Your task to perform on an android device: toggle priority inbox in the gmail app Image 0: 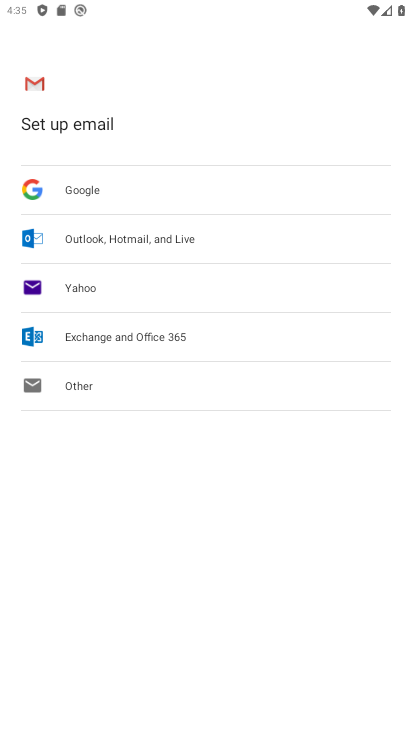
Step 0: press back button
Your task to perform on an android device: toggle priority inbox in the gmail app Image 1: 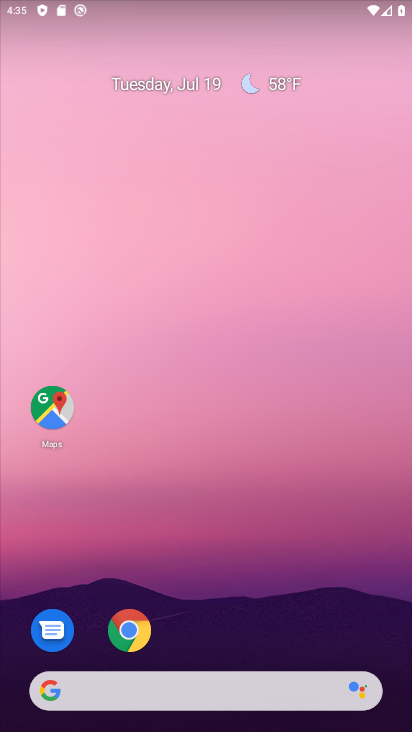
Step 1: drag from (239, 559) to (264, 228)
Your task to perform on an android device: toggle priority inbox in the gmail app Image 2: 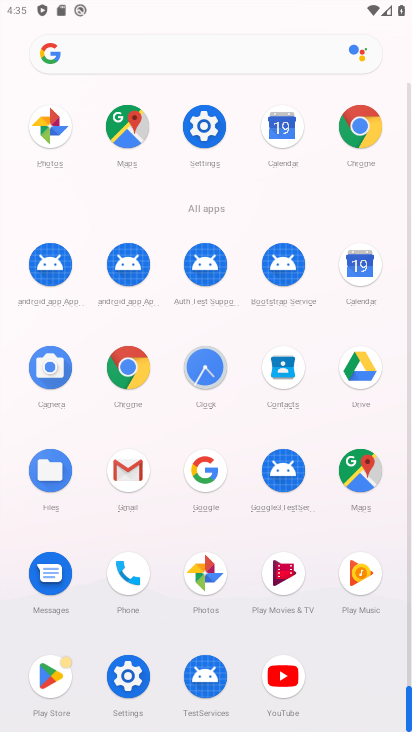
Step 2: click (133, 474)
Your task to perform on an android device: toggle priority inbox in the gmail app Image 3: 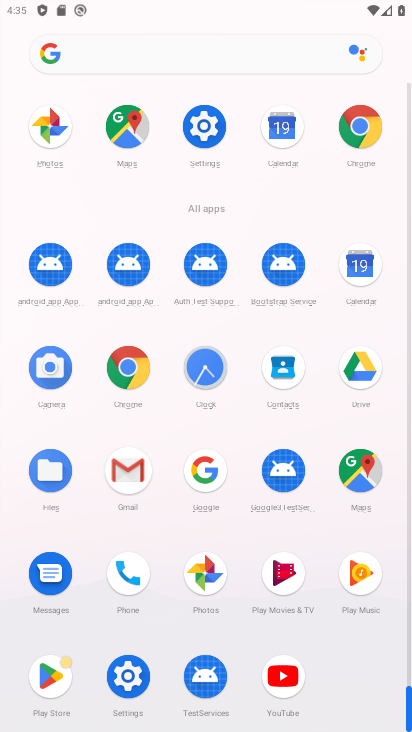
Step 3: click (134, 473)
Your task to perform on an android device: toggle priority inbox in the gmail app Image 4: 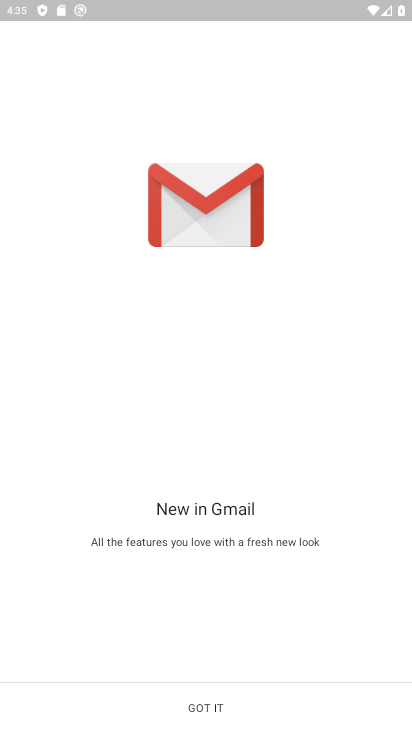
Step 4: click (198, 704)
Your task to perform on an android device: toggle priority inbox in the gmail app Image 5: 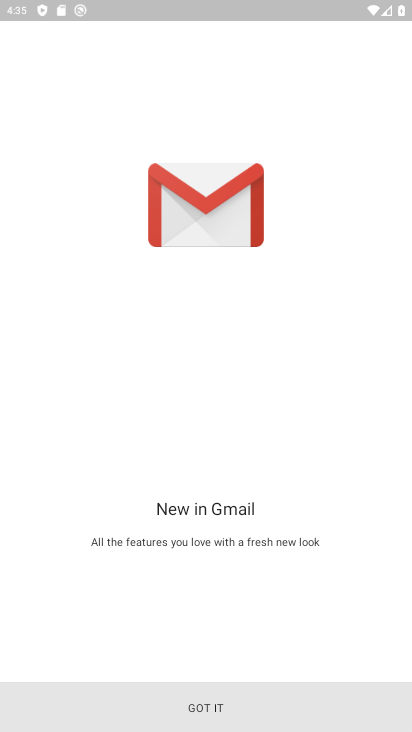
Step 5: click (199, 704)
Your task to perform on an android device: toggle priority inbox in the gmail app Image 6: 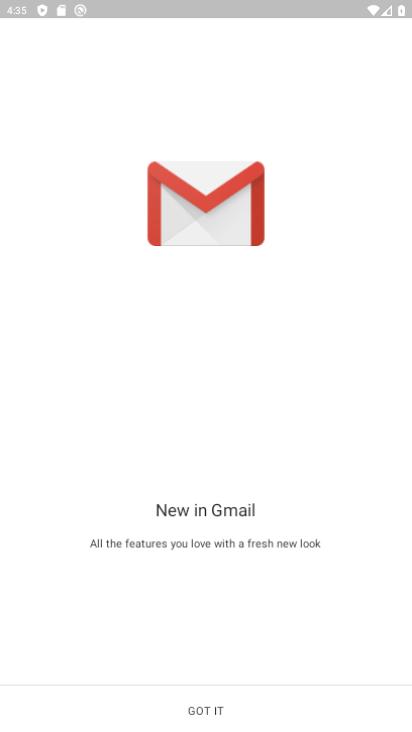
Step 6: click (199, 704)
Your task to perform on an android device: toggle priority inbox in the gmail app Image 7: 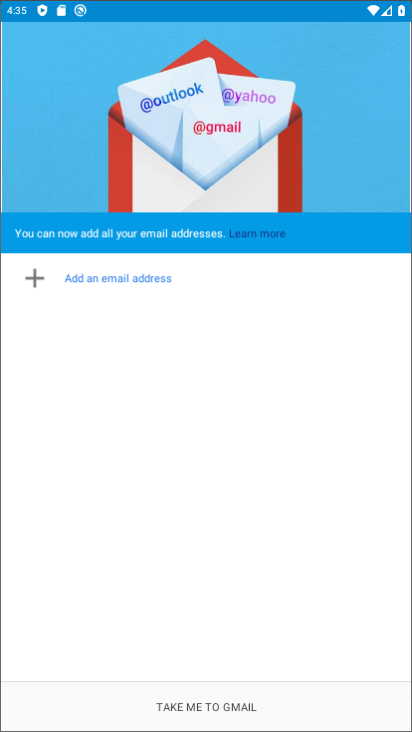
Step 7: click (199, 704)
Your task to perform on an android device: toggle priority inbox in the gmail app Image 8: 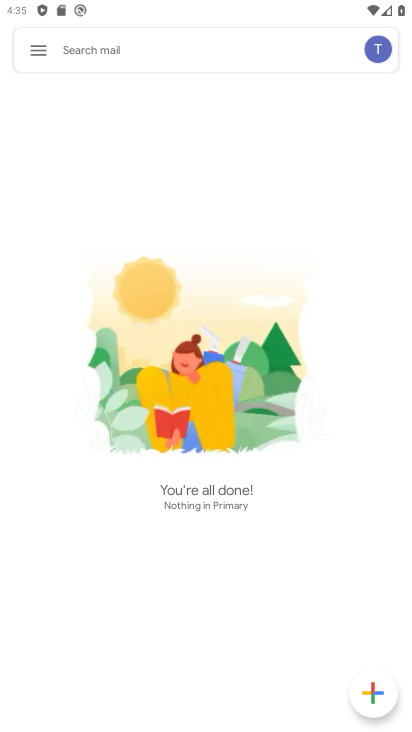
Step 8: click (39, 41)
Your task to perform on an android device: toggle priority inbox in the gmail app Image 9: 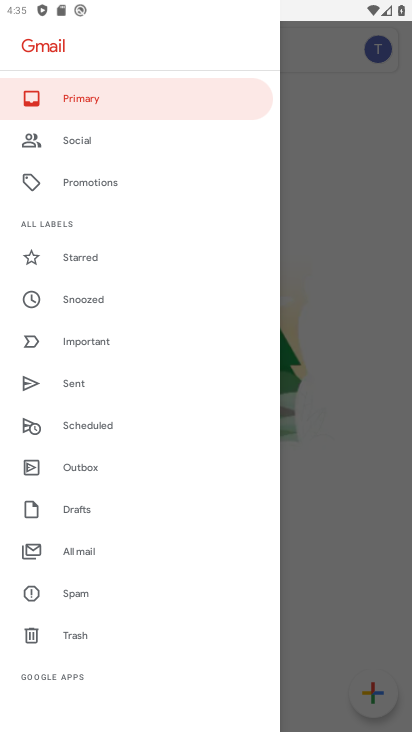
Step 9: drag from (111, 621) to (62, 290)
Your task to perform on an android device: toggle priority inbox in the gmail app Image 10: 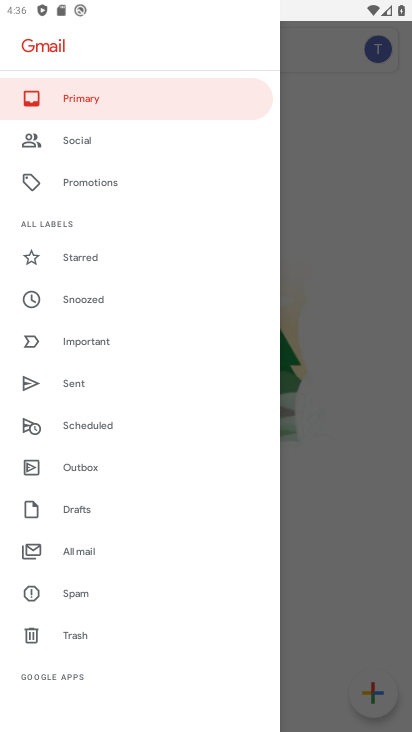
Step 10: drag from (150, 540) to (60, 239)
Your task to perform on an android device: toggle priority inbox in the gmail app Image 11: 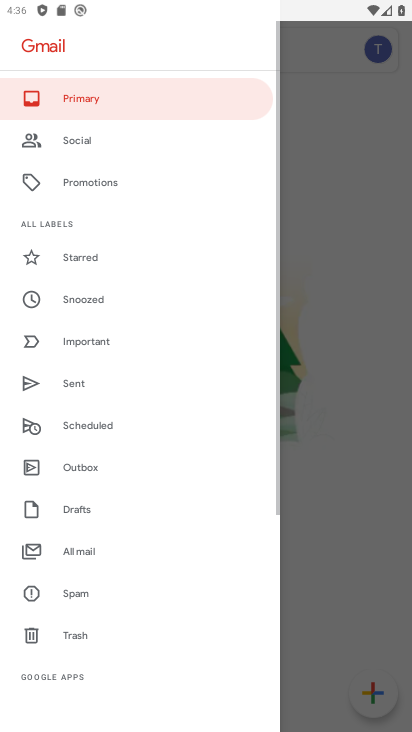
Step 11: drag from (144, 507) to (130, 234)
Your task to perform on an android device: toggle priority inbox in the gmail app Image 12: 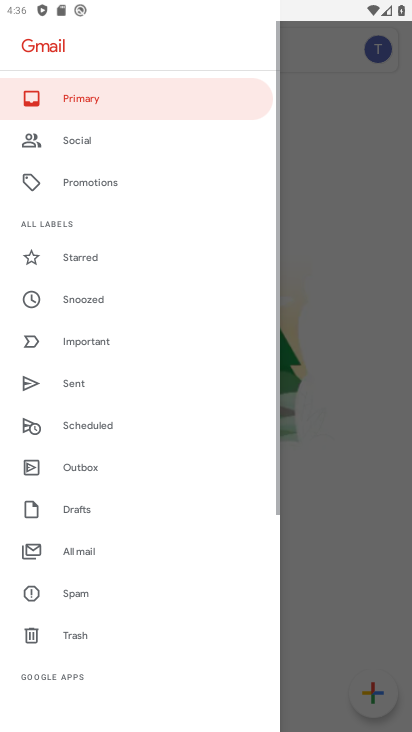
Step 12: drag from (142, 517) to (68, 194)
Your task to perform on an android device: toggle priority inbox in the gmail app Image 13: 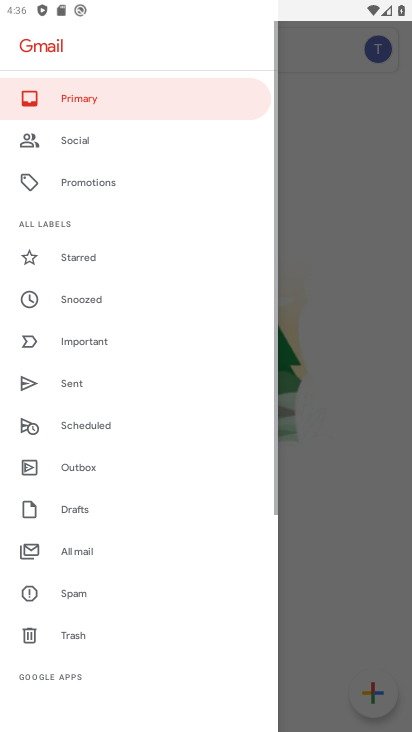
Step 13: drag from (86, 469) to (70, 159)
Your task to perform on an android device: toggle priority inbox in the gmail app Image 14: 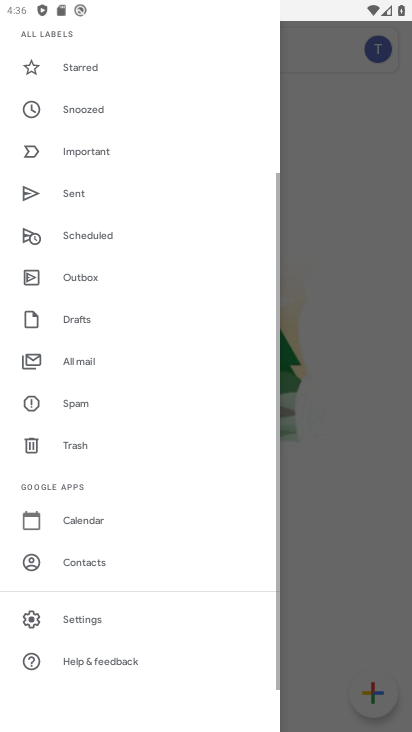
Step 14: drag from (116, 573) to (115, 330)
Your task to perform on an android device: toggle priority inbox in the gmail app Image 15: 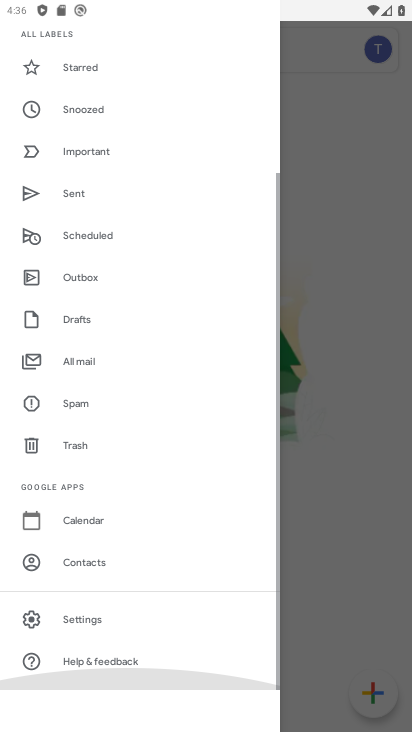
Step 15: drag from (109, 566) to (107, 324)
Your task to perform on an android device: toggle priority inbox in the gmail app Image 16: 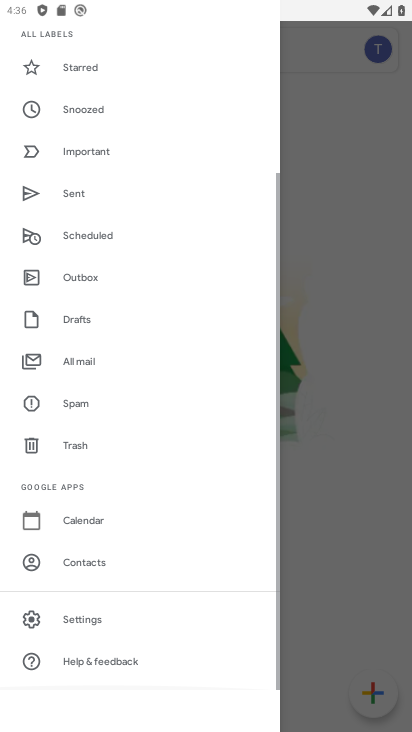
Step 16: click (72, 623)
Your task to perform on an android device: toggle priority inbox in the gmail app Image 17: 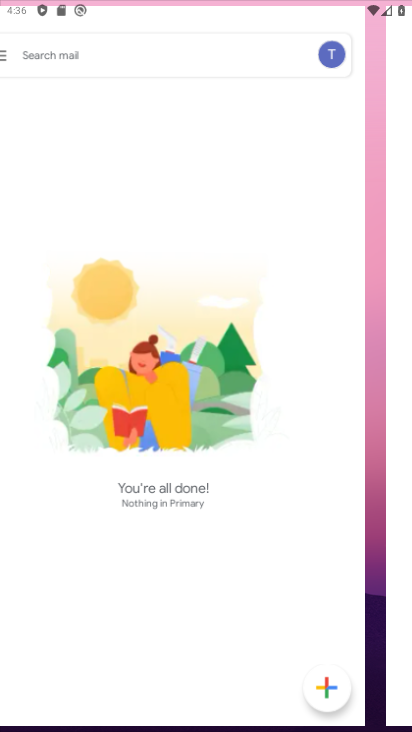
Step 17: click (73, 621)
Your task to perform on an android device: toggle priority inbox in the gmail app Image 18: 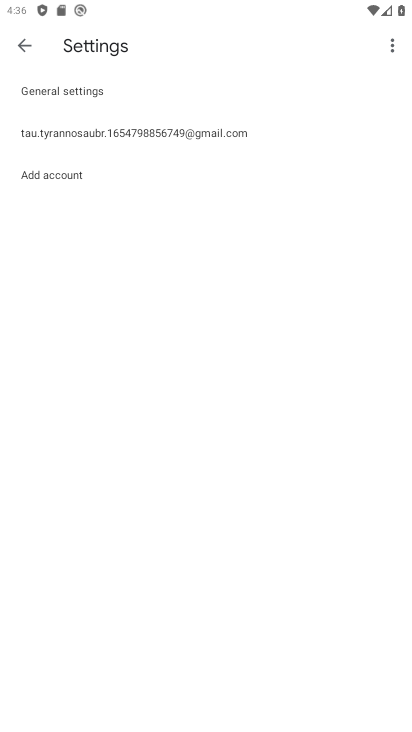
Step 18: click (79, 124)
Your task to perform on an android device: toggle priority inbox in the gmail app Image 19: 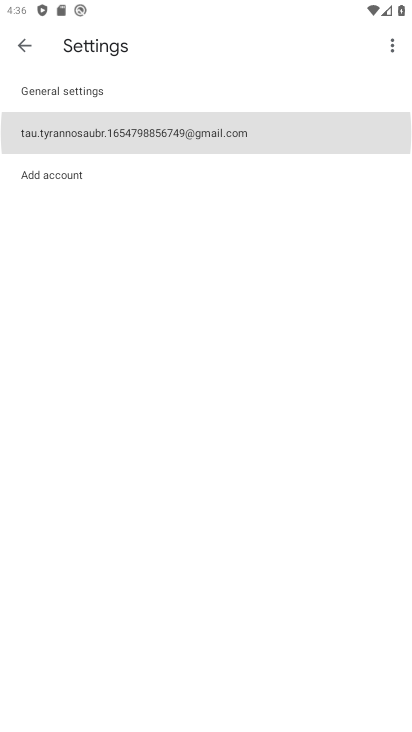
Step 19: click (83, 127)
Your task to perform on an android device: toggle priority inbox in the gmail app Image 20: 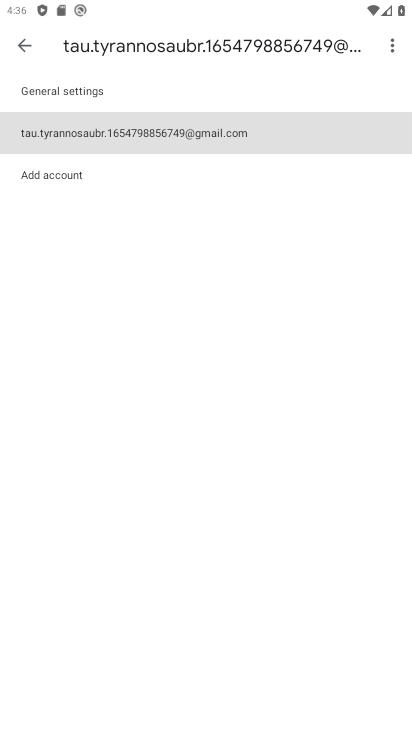
Step 20: click (90, 126)
Your task to perform on an android device: toggle priority inbox in the gmail app Image 21: 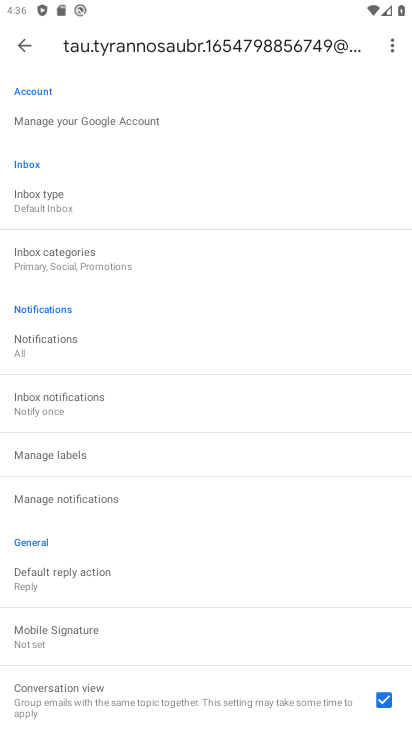
Step 21: click (35, 205)
Your task to perform on an android device: toggle priority inbox in the gmail app Image 22: 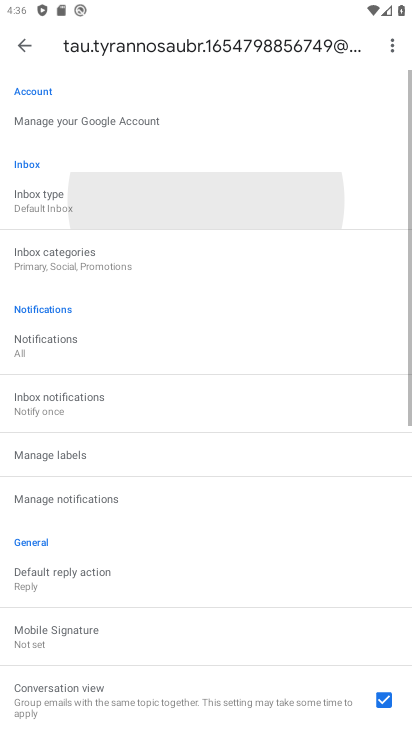
Step 22: click (46, 200)
Your task to perform on an android device: toggle priority inbox in the gmail app Image 23: 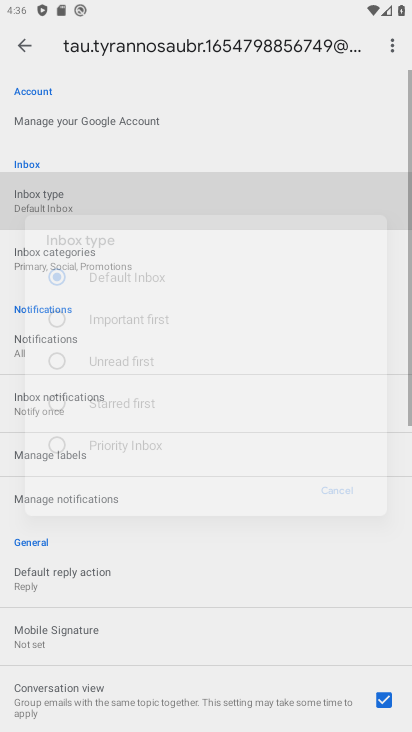
Step 23: click (47, 205)
Your task to perform on an android device: toggle priority inbox in the gmail app Image 24: 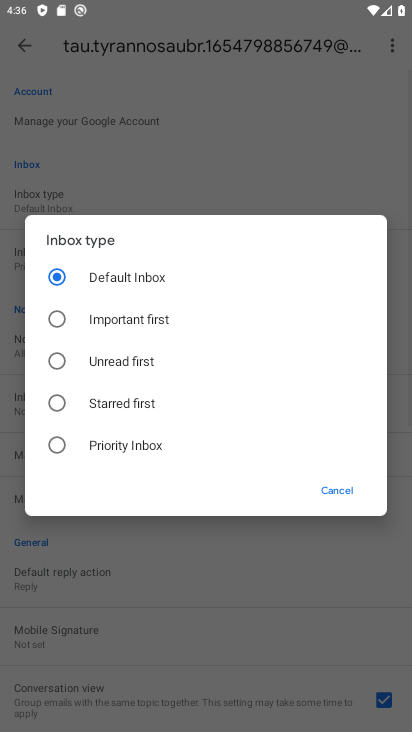
Step 24: click (54, 449)
Your task to perform on an android device: toggle priority inbox in the gmail app Image 25: 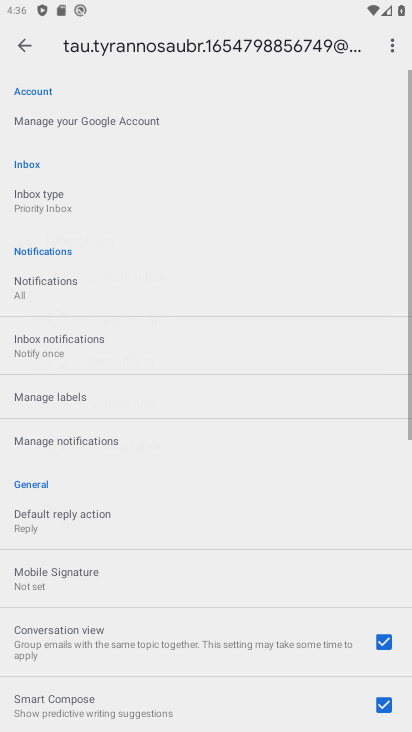
Step 25: click (57, 448)
Your task to perform on an android device: toggle priority inbox in the gmail app Image 26: 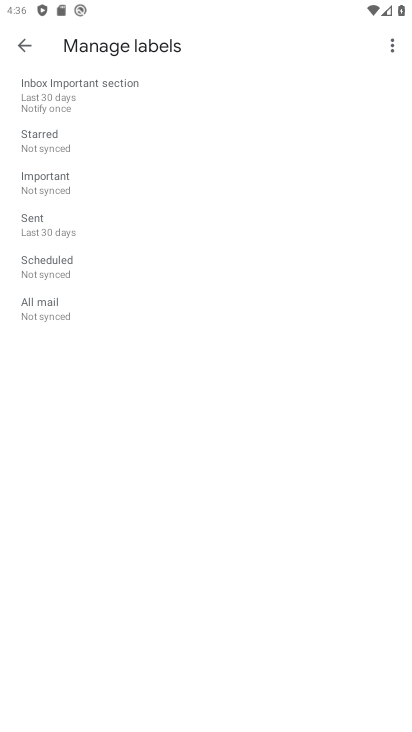
Step 26: click (21, 45)
Your task to perform on an android device: toggle priority inbox in the gmail app Image 27: 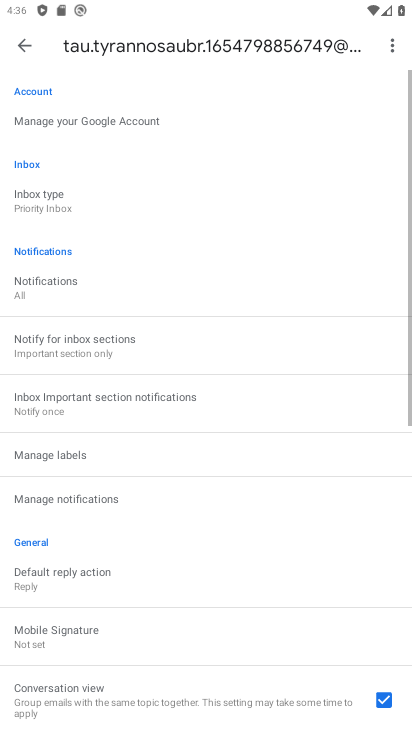
Step 27: task complete